Your task to perform on an android device: turn pop-ups on in chrome Image 0: 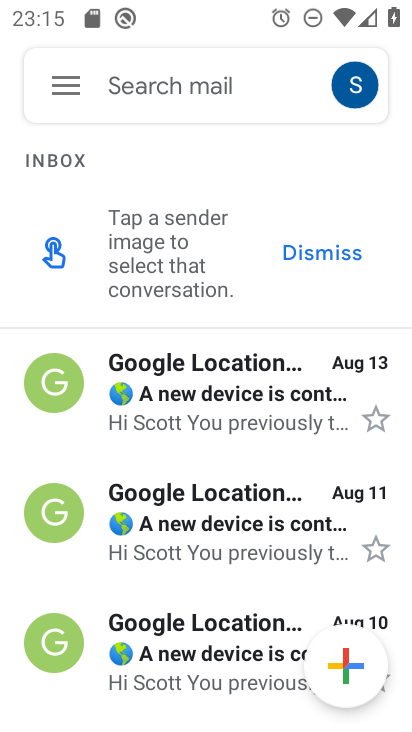
Step 0: press home button
Your task to perform on an android device: turn pop-ups on in chrome Image 1: 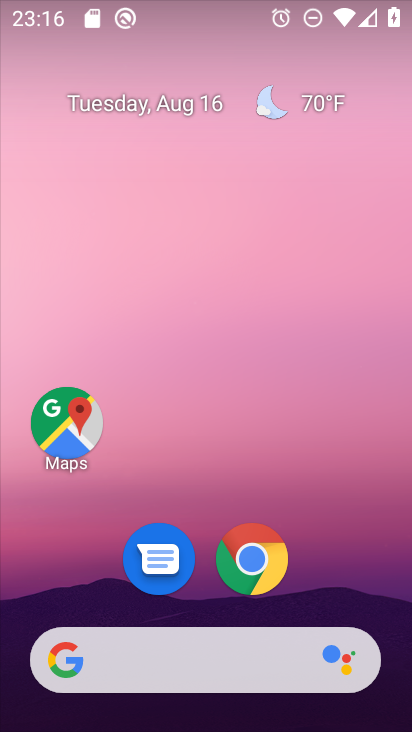
Step 1: click (255, 561)
Your task to perform on an android device: turn pop-ups on in chrome Image 2: 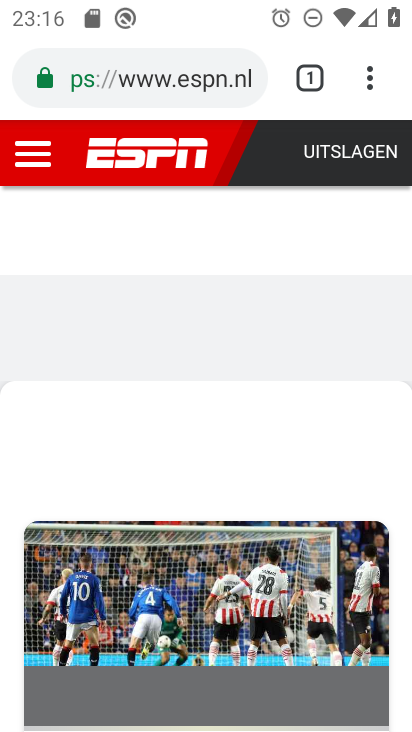
Step 2: click (383, 80)
Your task to perform on an android device: turn pop-ups on in chrome Image 3: 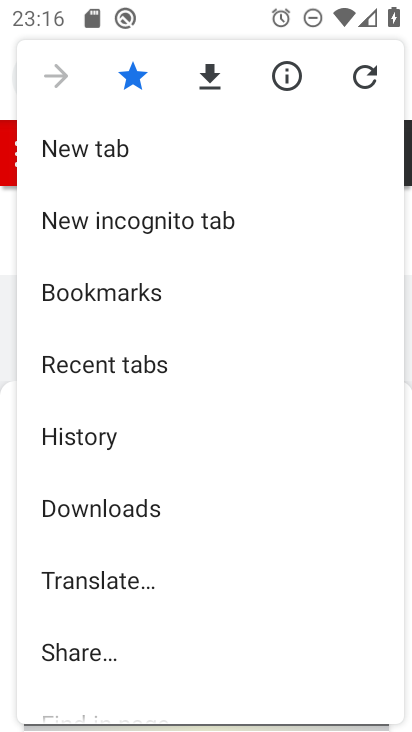
Step 3: drag from (144, 443) to (260, 313)
Your task to perform on an android device: turn pop-ups on in chrome Image 4: 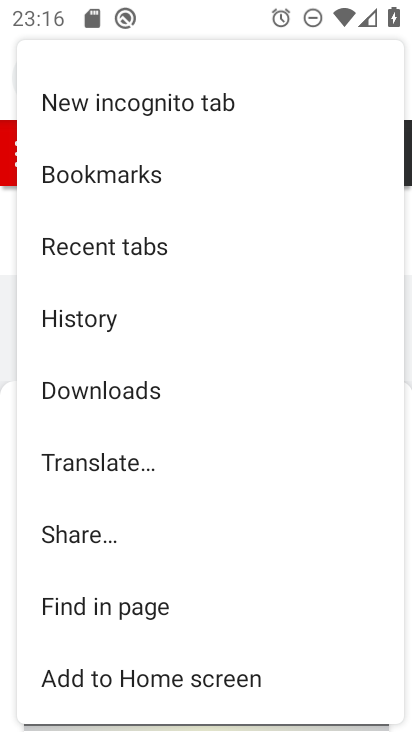
Step 4: drag from (213, 483) to (344, 334)
Your task to perform on an android device: turn pop-ups on in chrome Image 5: 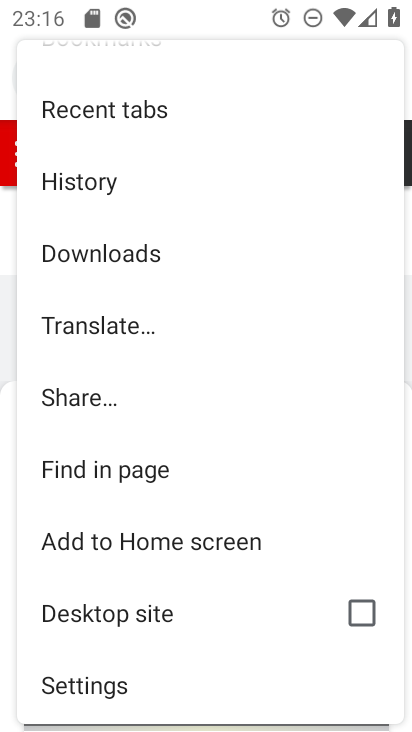
Step 5: drag from (213, 556) to (345, 391)
Your task to perform on an android device: turn pop-ups on in chrome Image 6: 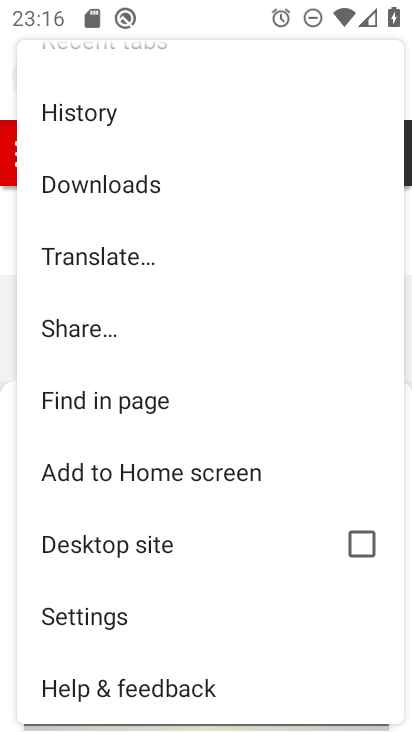
Step 6: click (100, 613)
Your task to perform on an android device: turn pop-ups on in chrome Image 7: 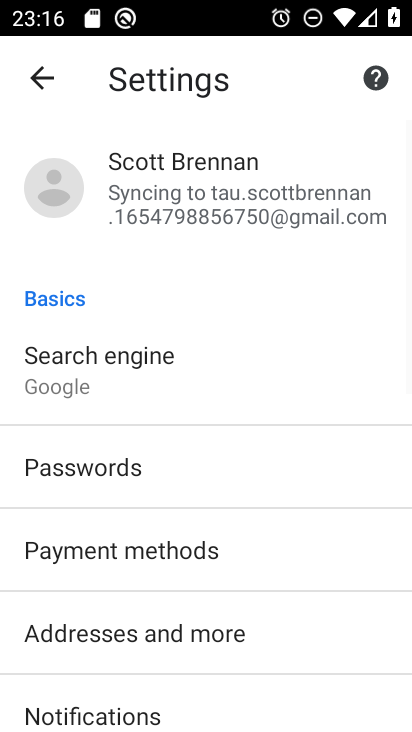
Step 7: drag from (122, 587) to (220, 456)
Your task to perform on an android device: turn pop-ups on in chrome Image 8: 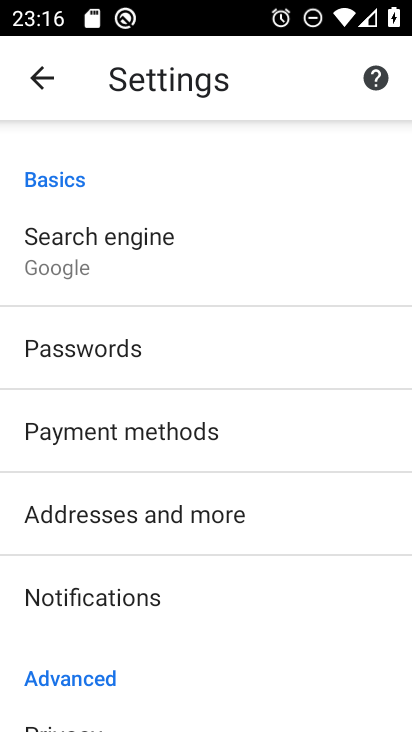
Step 8: drag from (127, 623) to (225, 491)
Your task to perform on an android device: turn pop-ups on in chrome Image 9: 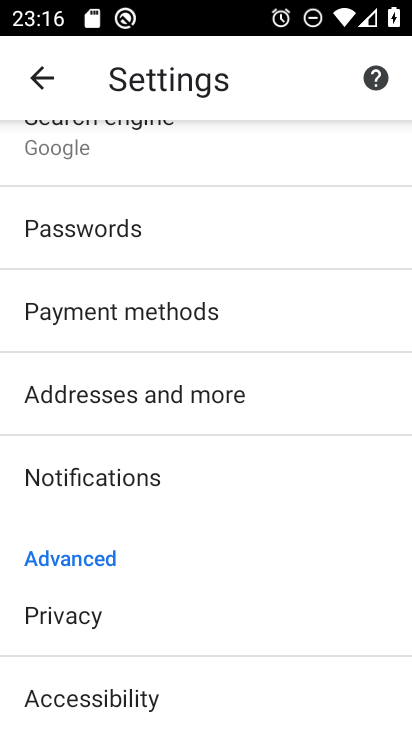
Step 9: drag from (122, 639) to (220, 512)
Your task to perform on an android device: turn pop-ups on in chrome Image 10: 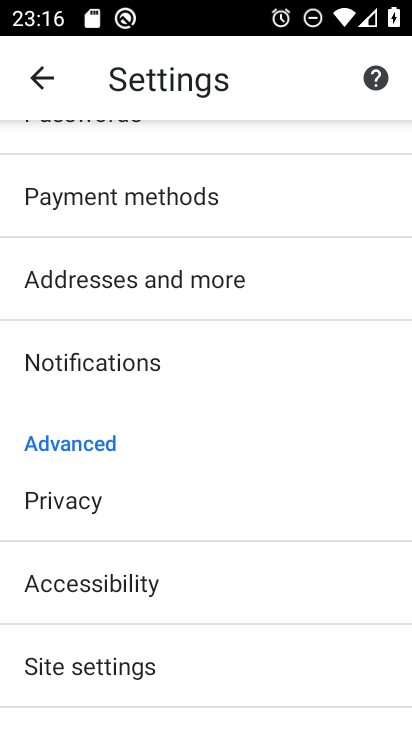
Step 10: drag from (140, 623) to (228, 492)
Your task to perform on an android device: turn pop-ups on in chrome Image 11: 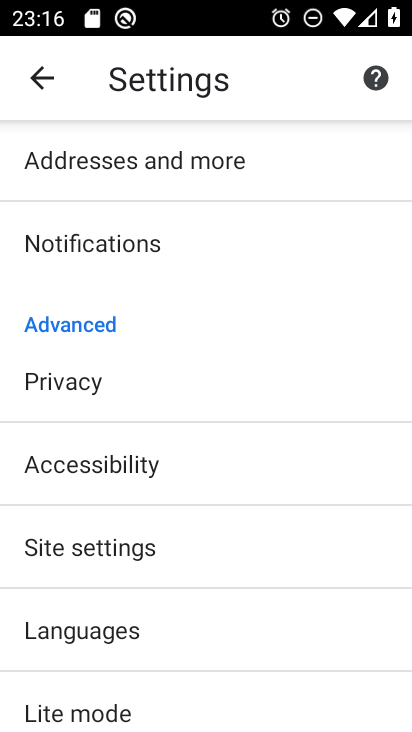
Step 11: drag from (107, 644) to (222, 513)
Your task to perform on an android device: turn pop-ups on in chrome Image 12: 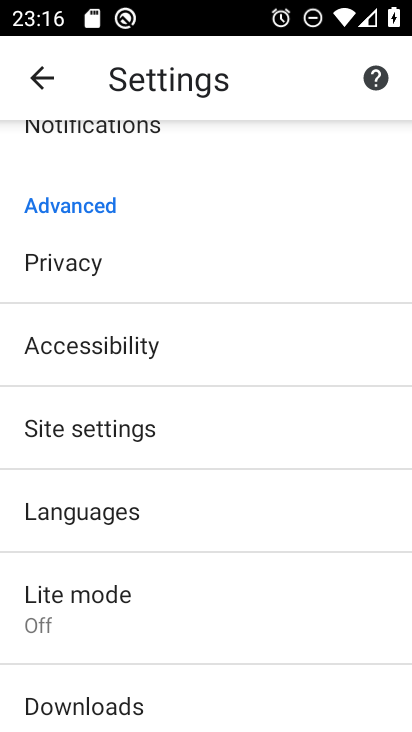
Step 12: click (110, 436)
Your task to perform on an android device: turn pop-ups on in chrome Image 13: 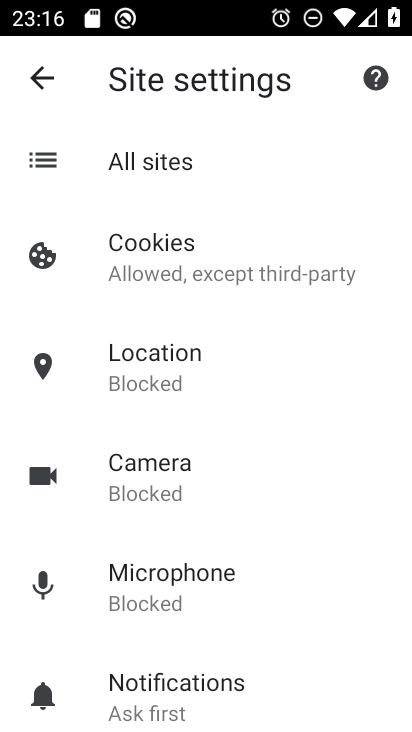
Step 13: drag from (164, 542) to (195, 423)
Your task to perform on an android device: turn pop-ups on in chrome Image 14: 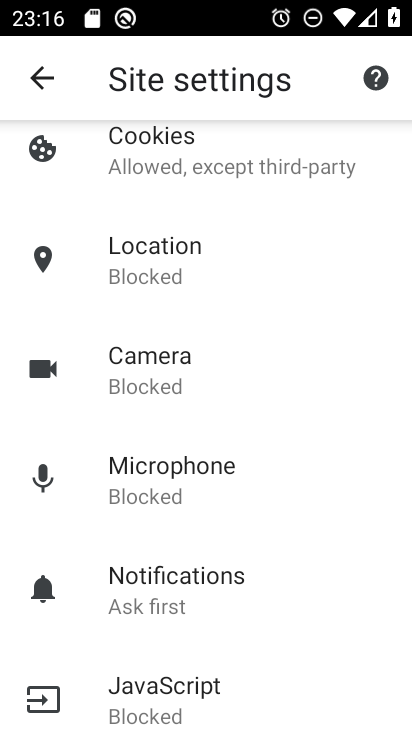
Step 14: drag from (181, 547) to (230, 422)
Your task to perform on an android device: turn pop-ups on in chrome Image 15: 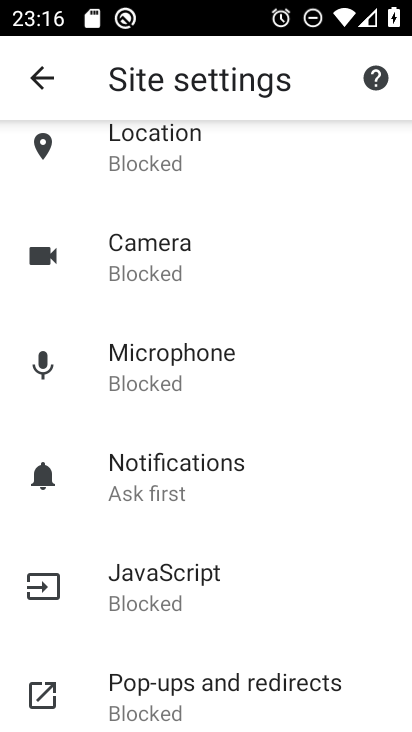
Step 15: drag from (174, 618) to (253, 487)
Your task to perform on an android device: turn pop-ups on in chrome Image 16: 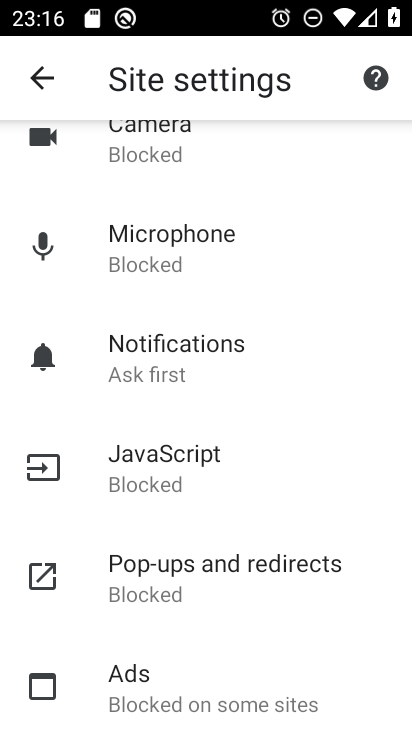
Step 16: click (209, 569)
Your task to perform on an android device: turn pop-ups on in chrome Image 17: 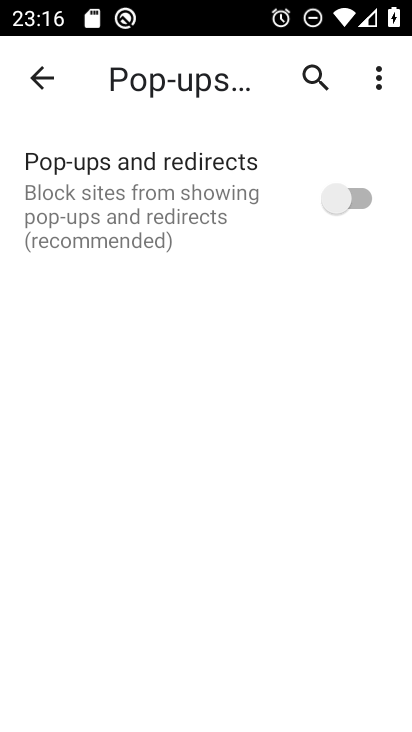
Step 17: click (338, 192)
Your task to perform on an android device: turn pop-ups on in chrome Image 18: 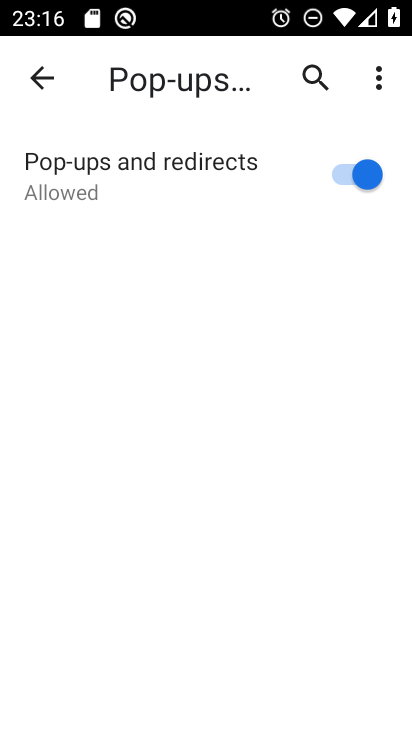
Step 18: task complete